Your task to perform on an android device: Show me popular videos on Youtube Image 0: 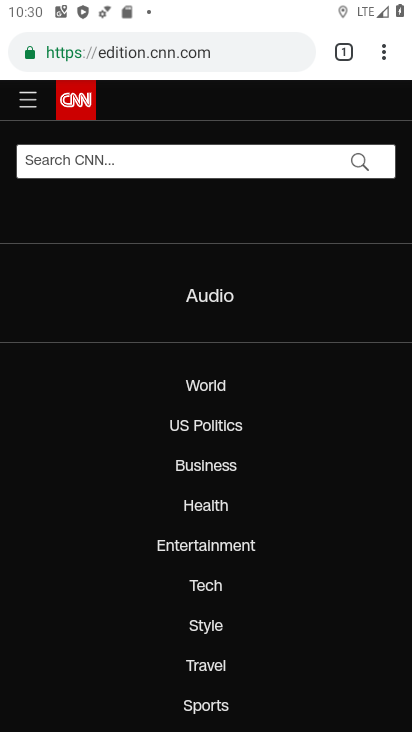
Step 0: press home button
Your task to perform on an android device: Show me popular videos on Youtube Image 1: 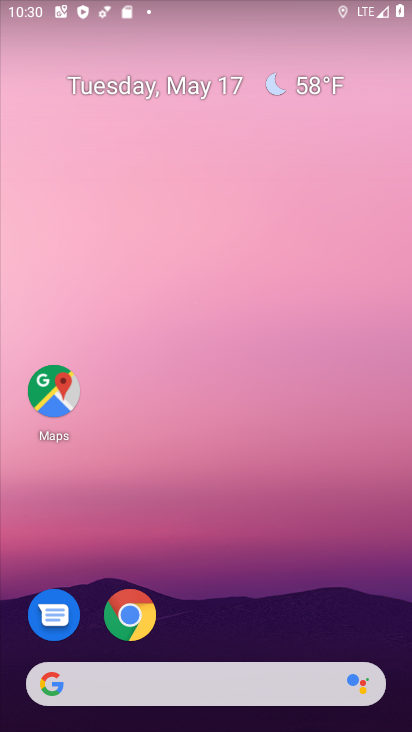
Step 1: drag from (195, 606) to (180, 175)
Your task to perform on an android device: Show me popular videos on Youtube Image 2: 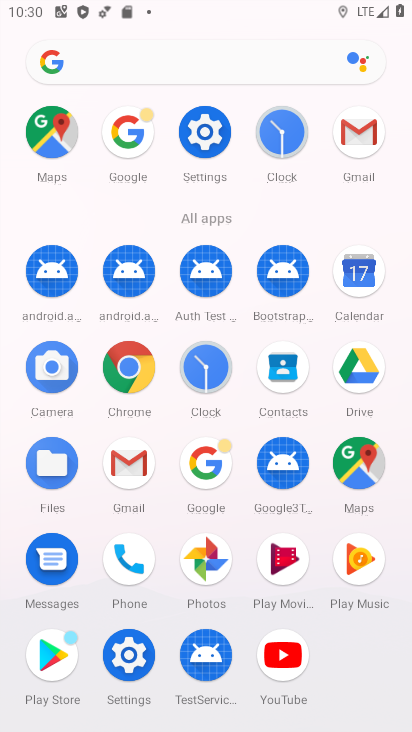
Step 2: click (281, 652)
Your task to perform on an android device: Show me popular videos on Youtube Image 3: 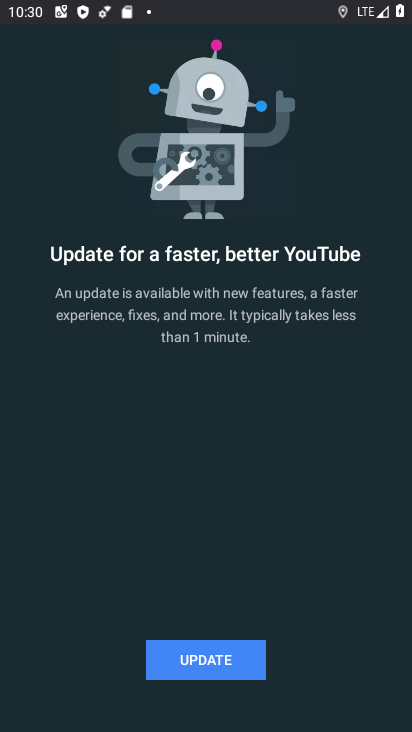
Step 3: click (225, 660)
Your task to perform on an android device: Show me popular videos on Youtube Image 4: 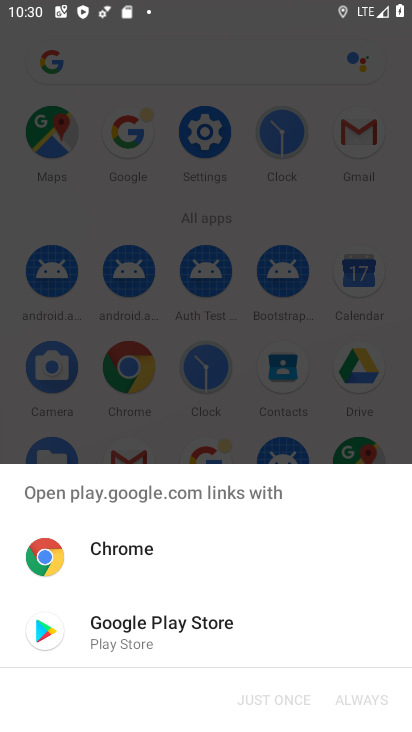
Step 4: drag from (184, 639) to (234, 639)
Your task to perform on an android device: Show me popular videos on Youtube Image 5: 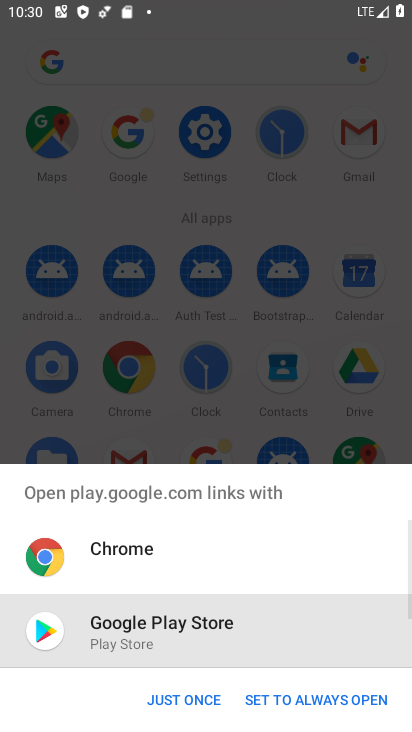
Step 5: click (173, 695)
Your task to perform on an android device: Show me popular videos on Youtube Image 6: 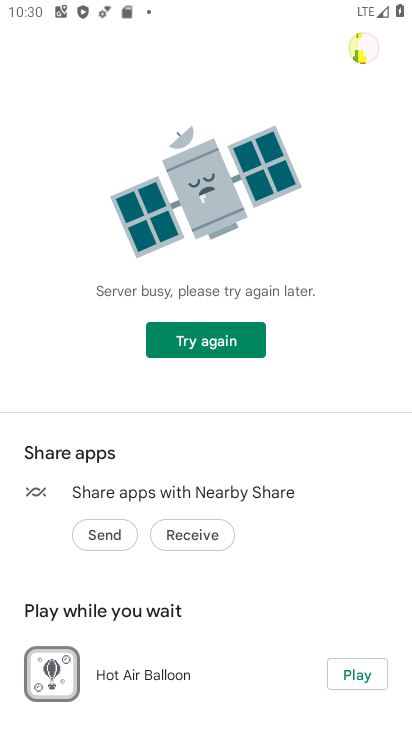
Step 6: press back button
Your task to perform on an android device: Show me popular videos on Youtube Image 7: 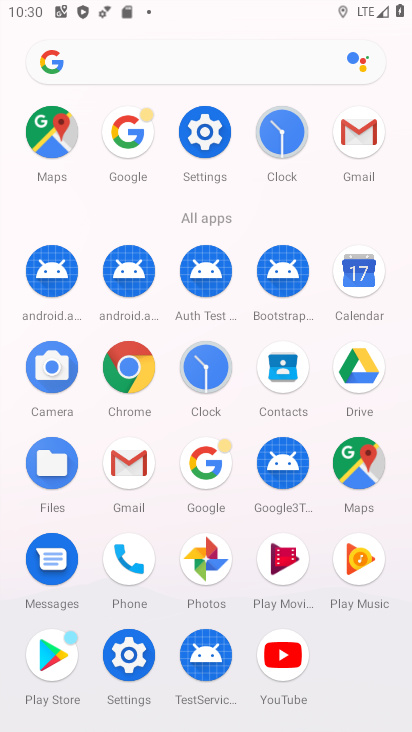
Step 7: click (282, 659)
Your task to perform on an android device: Show me popular videos on Youtube Image 8: 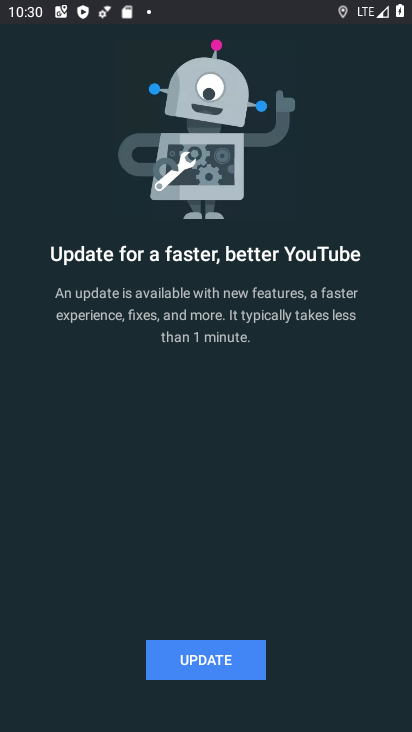
Step 8: click (207, 656)
Your task to perform on an android device: Show me popular videos on Youtube Image 9: 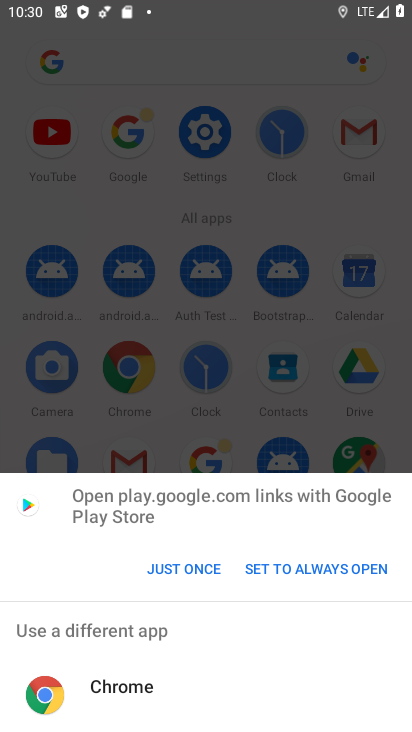
Step 9: click (193, 569)
Your task to perform on an android device: Show me popular videos on Youtube Image 10: 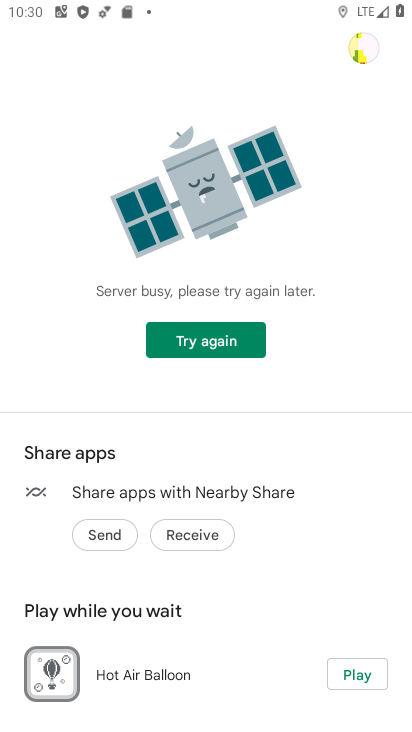
Step 10: task complete